Your task to perform on an android device: Go to Android settings Image 0: 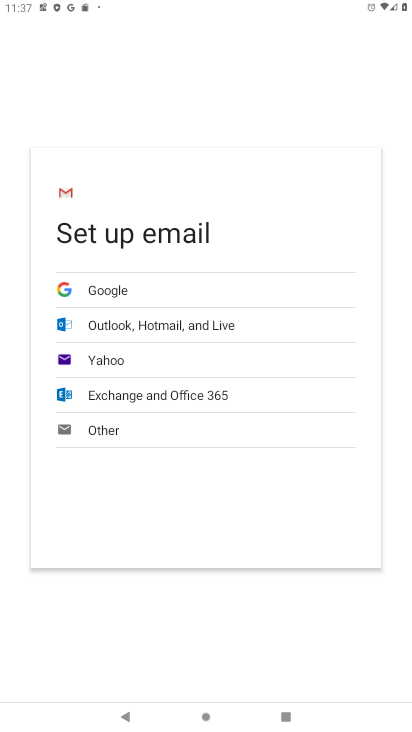
Step 0: press home button
Your task to perform on an android device: Go to Android settings Image 1: 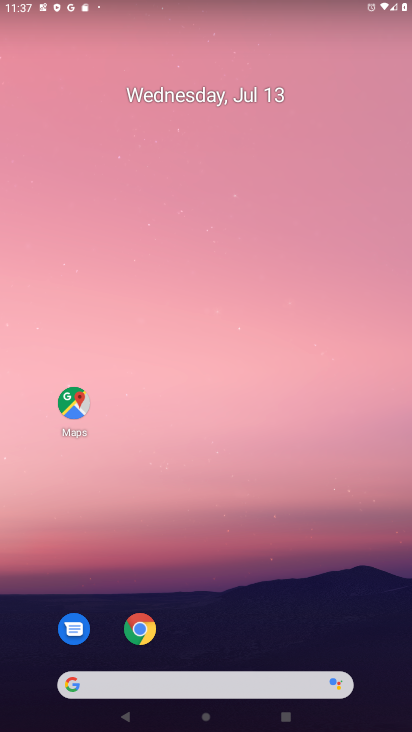
Step 1: drag from (263, 648) to (177, 176)
Your task to perform on an android device: Go to Android settings Image 2: 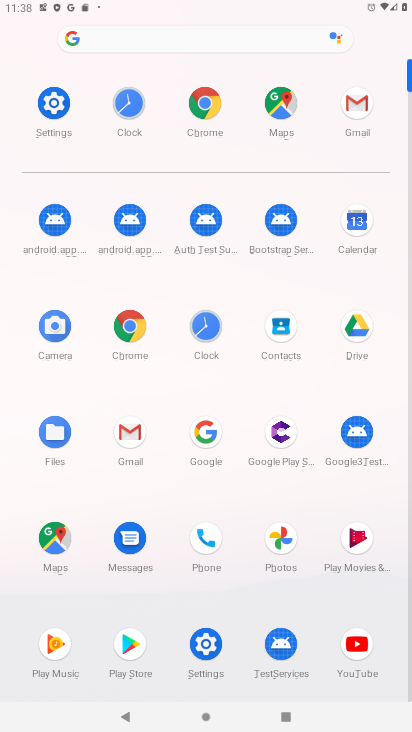
Step 2: click (212, 651)
Your task to perform on an android device: Go to Android settings Image 3: 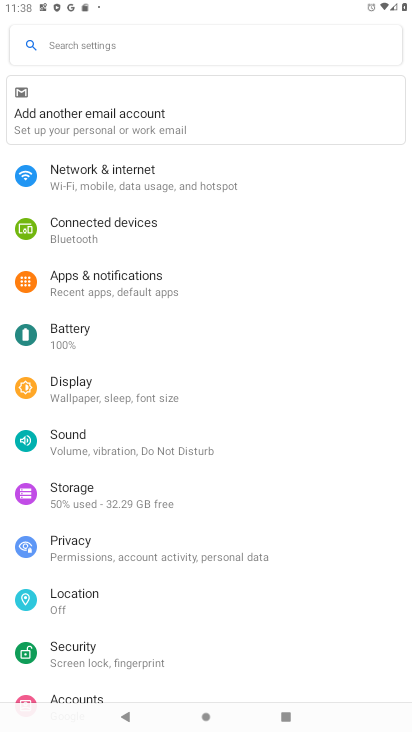
Step 3: drag from (215, 662) to (219, 353)
Your task to perform on an android device: Go to Android settings Image 4: 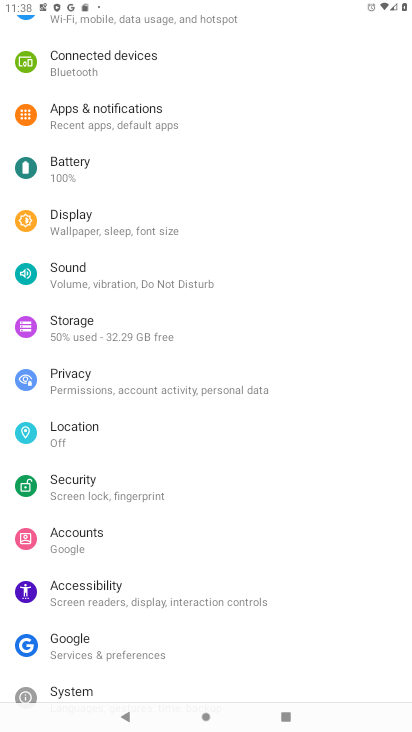
Step 4: drag from (175, 644) to (156, 136)
Your task to perform on an android device: Go to Android settings Image 5: 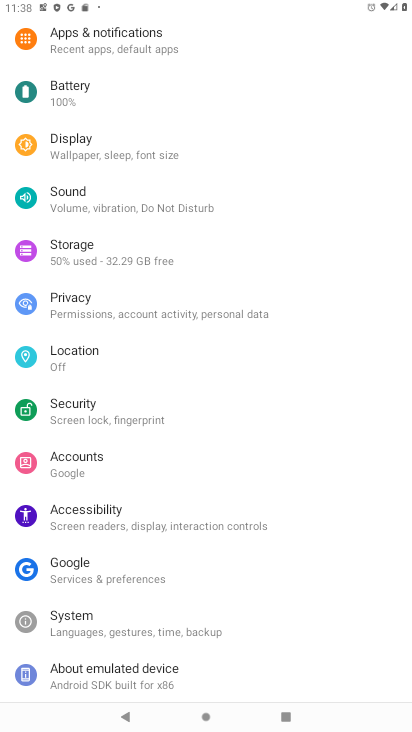
Step 5: click (106, 666)
Your task to perform on an android device: Go to Android settings Image 6: 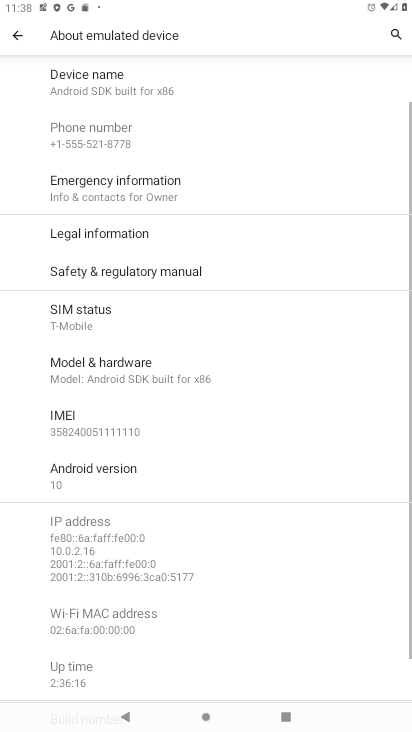
Step 6: task complete